Your task to perform on an android device: toggle pop-ups in chrome Image 0: 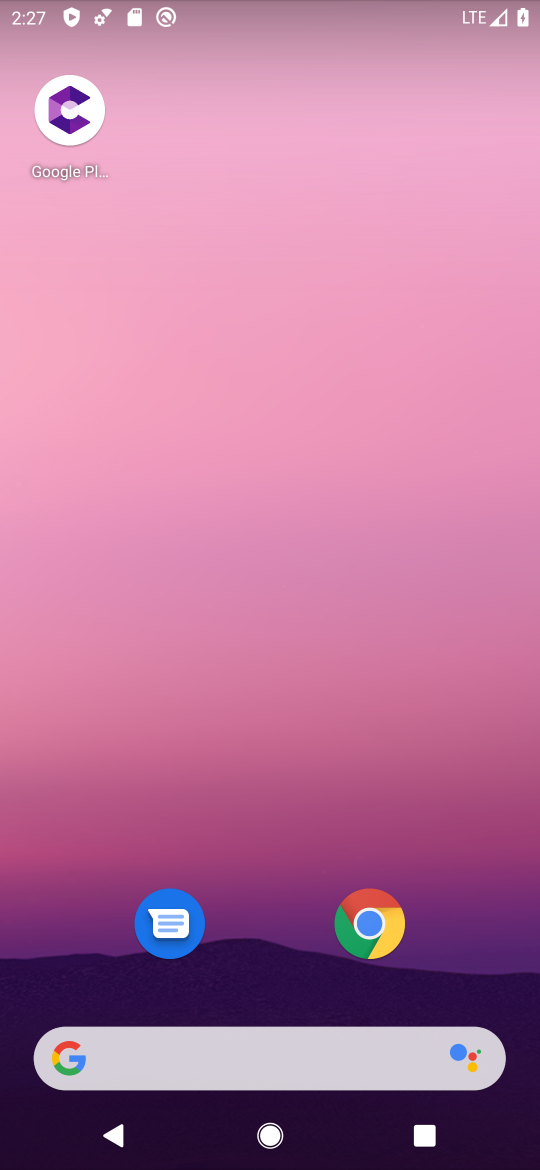
Step 0: drag from (352, 808) to (294, 233)
Your task to perform on an android device: toggle pop-ups in chrome Image 1: 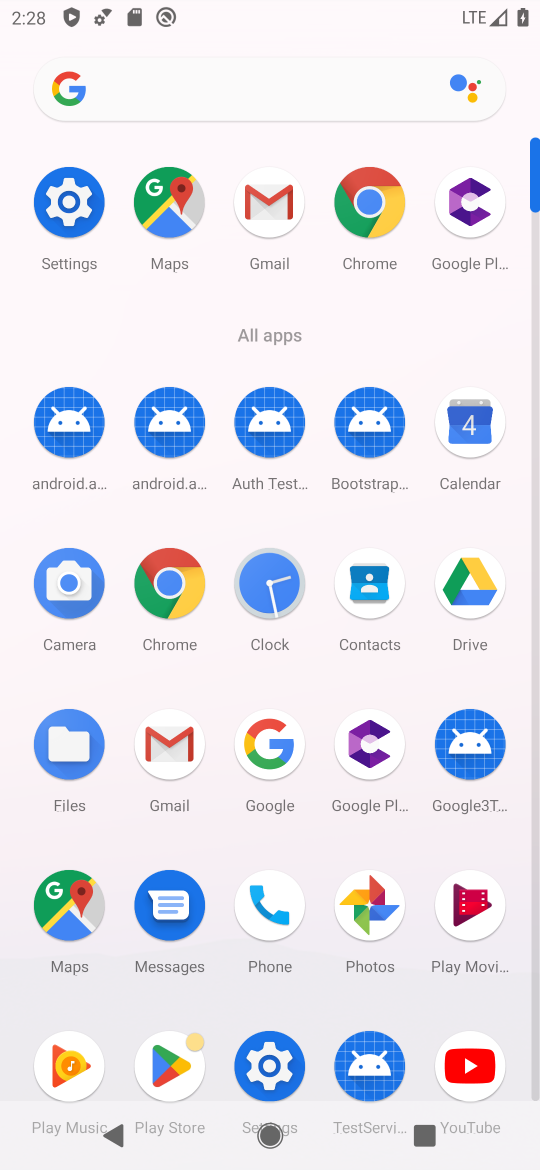
Step 1: click (365, 205)
Your task to perform on an android device: toggle pop-ups in chrome Image 2: 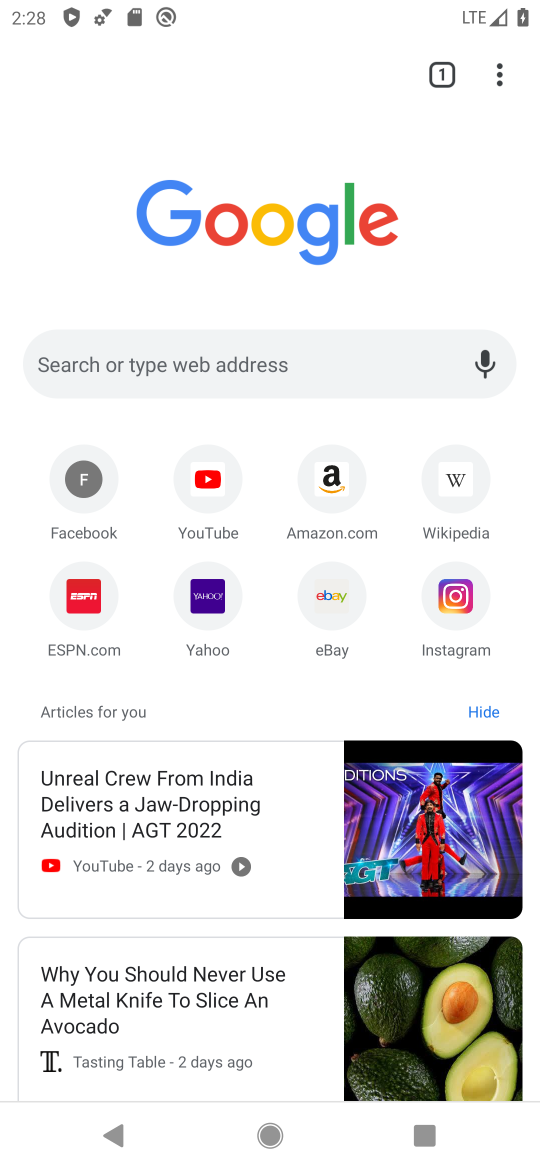
Step 2: drag from (506, 89) to (226, 642)
Your task to perform on an android device: toggle pop-ups in chrome Image 3: 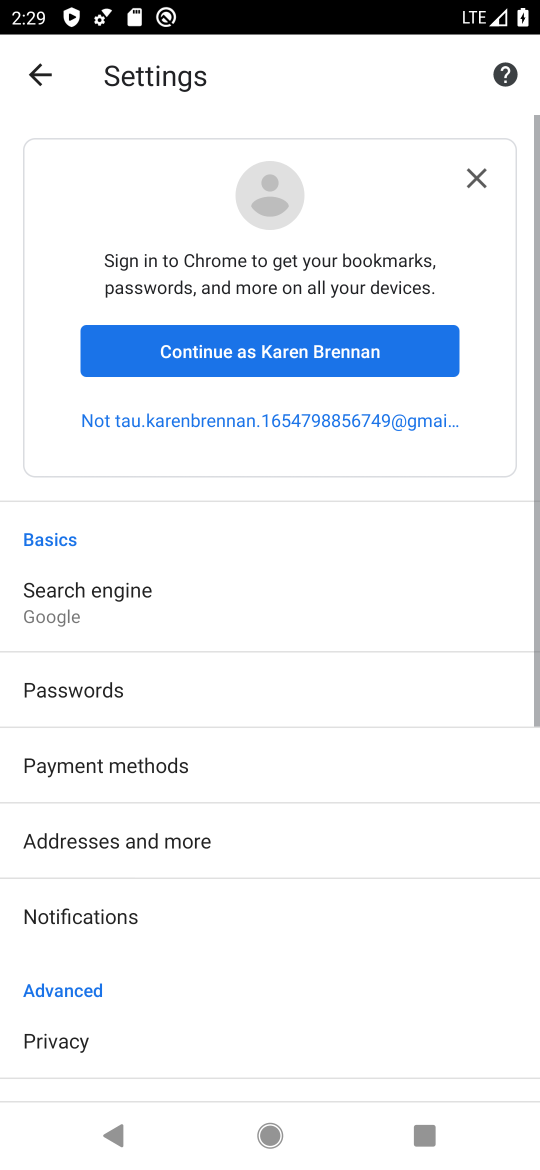
Step 3: drag from (118, 1028) to (119, 281)
Your task to perform on an android device: toggle pop-ups in chrome Image 4: 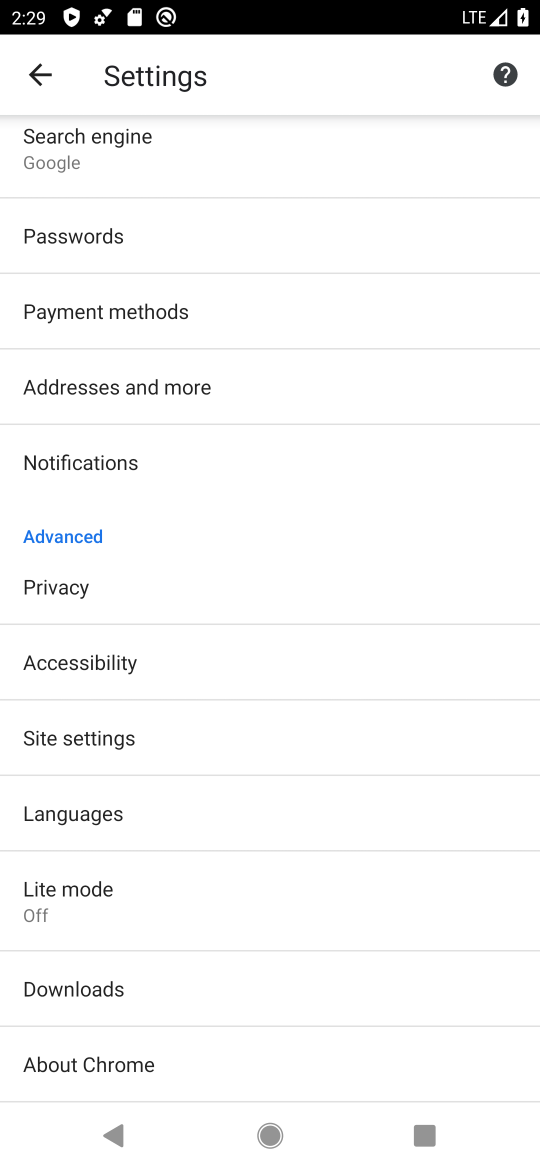
Step 4: click (73, 733)
Your task to perform on an android device: toggle pop-ups in chrome Image 5: 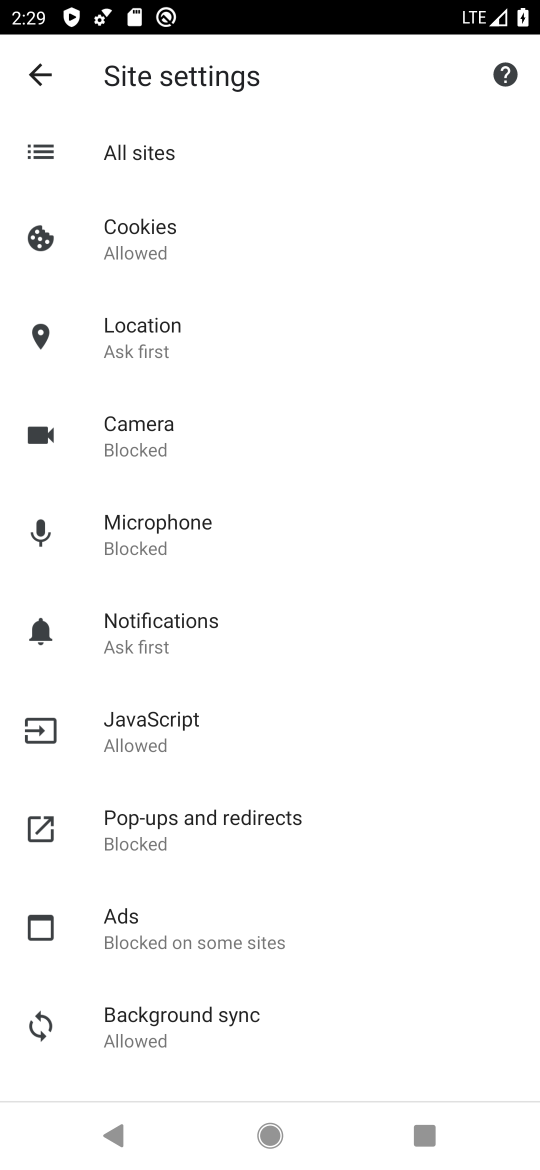
Step 5: click (139, 845)
Your task to perform on an android device: toggle pop-ups in chrome Image 6: 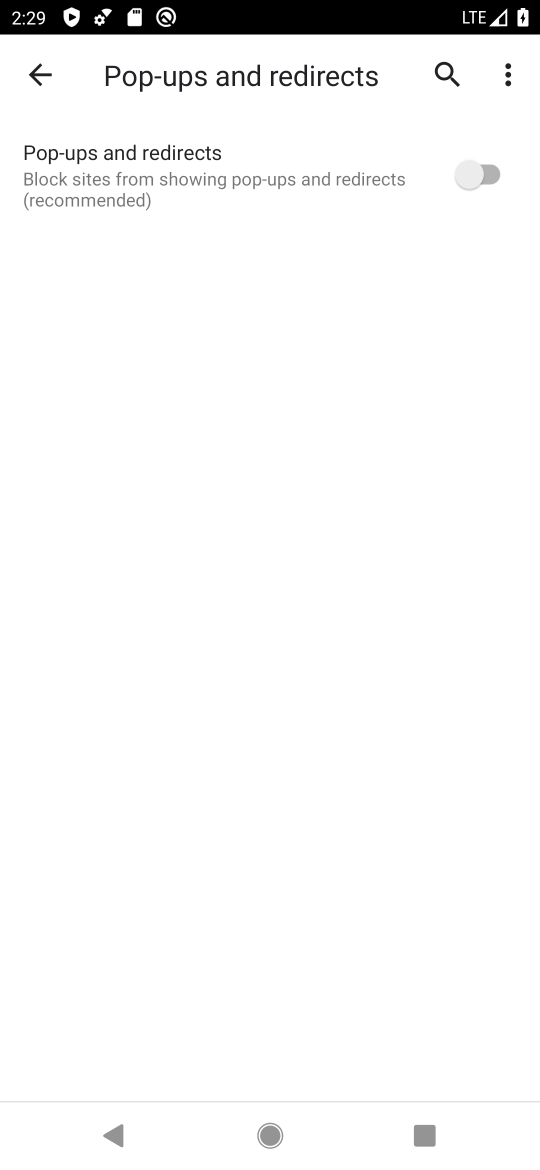
Step 6: click (484, 169)
Your task to perform on an android device: toggle pop-ups in chrome Image 7: 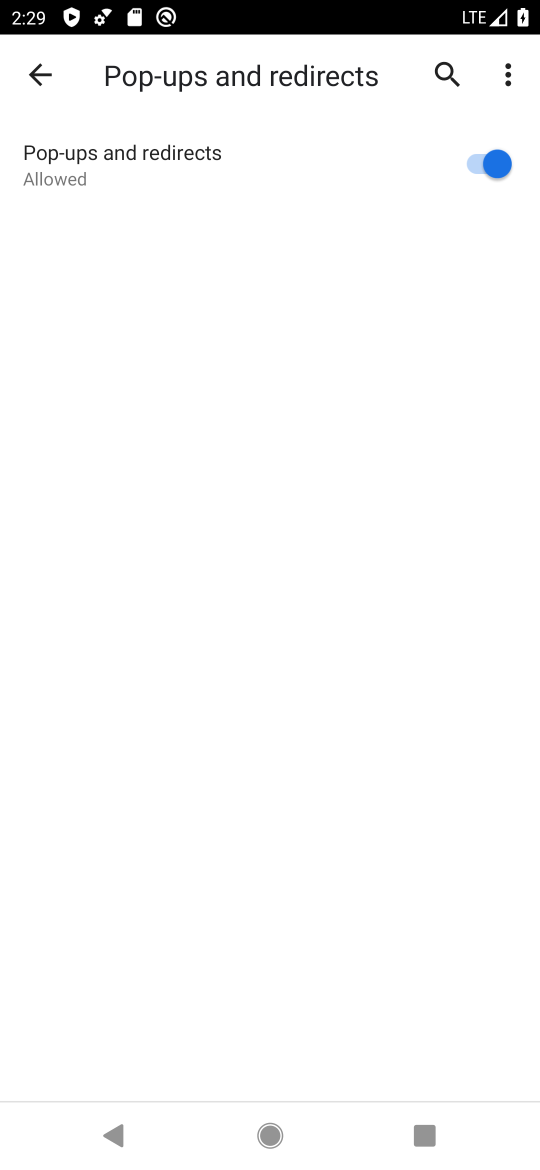
Step 7: task complete